Your task to perform on an android device: set an alarm Image 0: 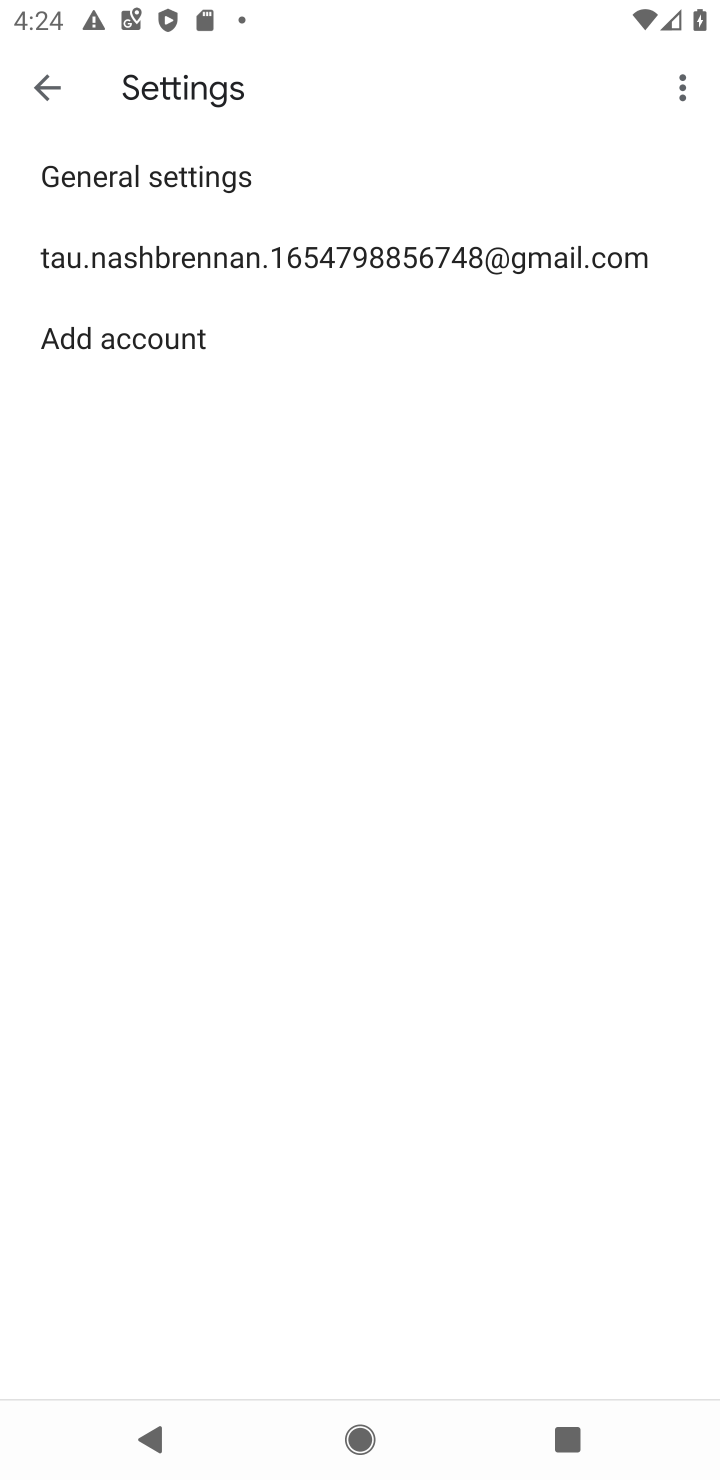
Step 0: press home button
Your task to perform on an android device: set an alarm Image 1: 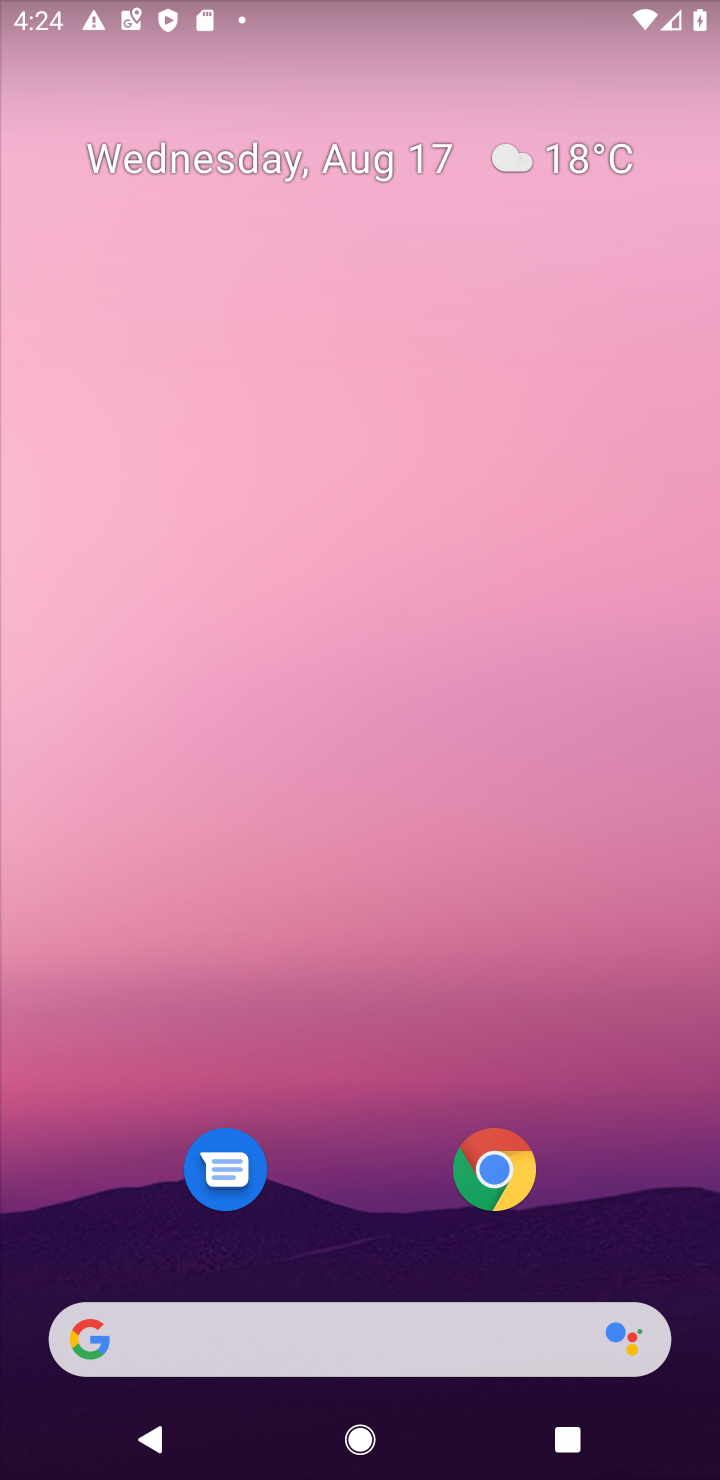
Step 1: drag from (400, 1249) to (413, 132)
Your task to perform on an android device: set an alarm Image 2: 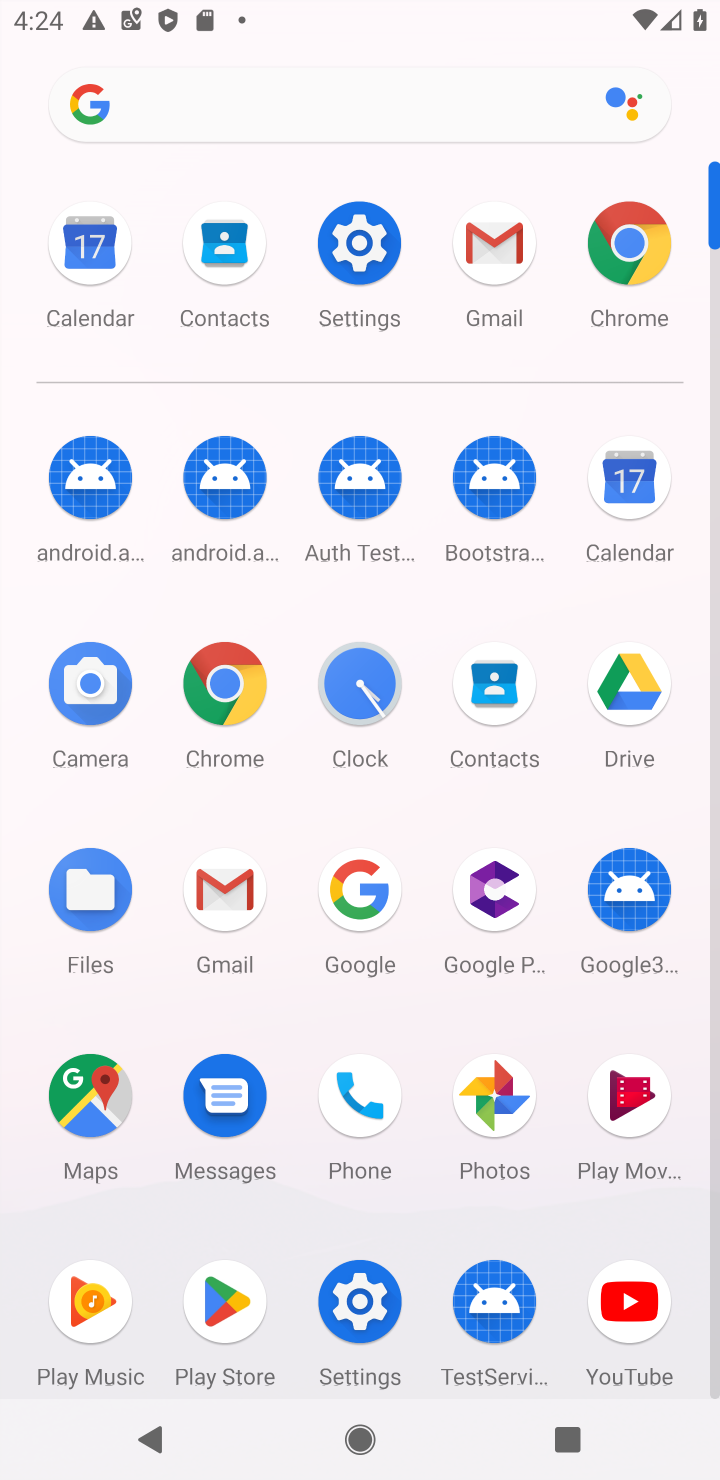
Step 2: click (349, 689)
Your task to perform on an android device: set an alarm Image 3: 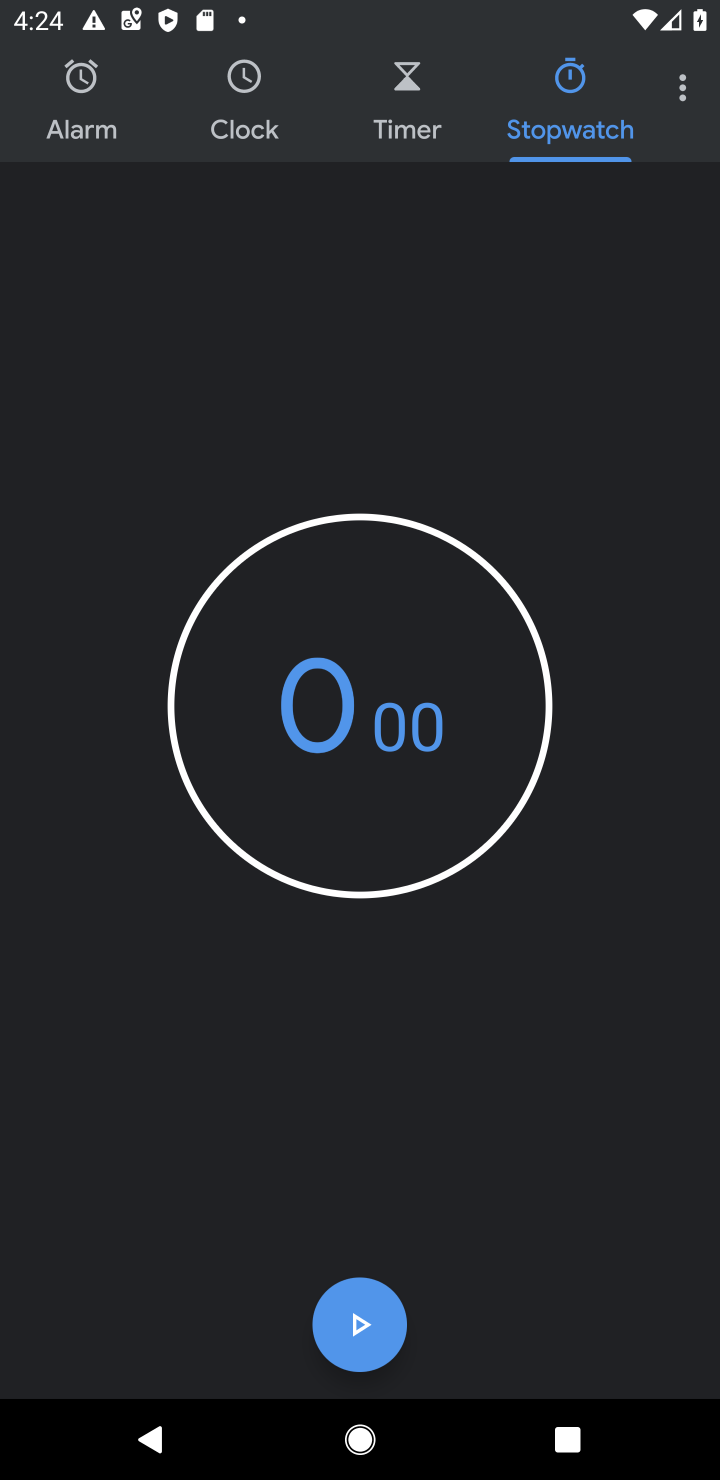
Step 3: click (88, 128)
Your task to perform on an android device: set an alarm Image 4: 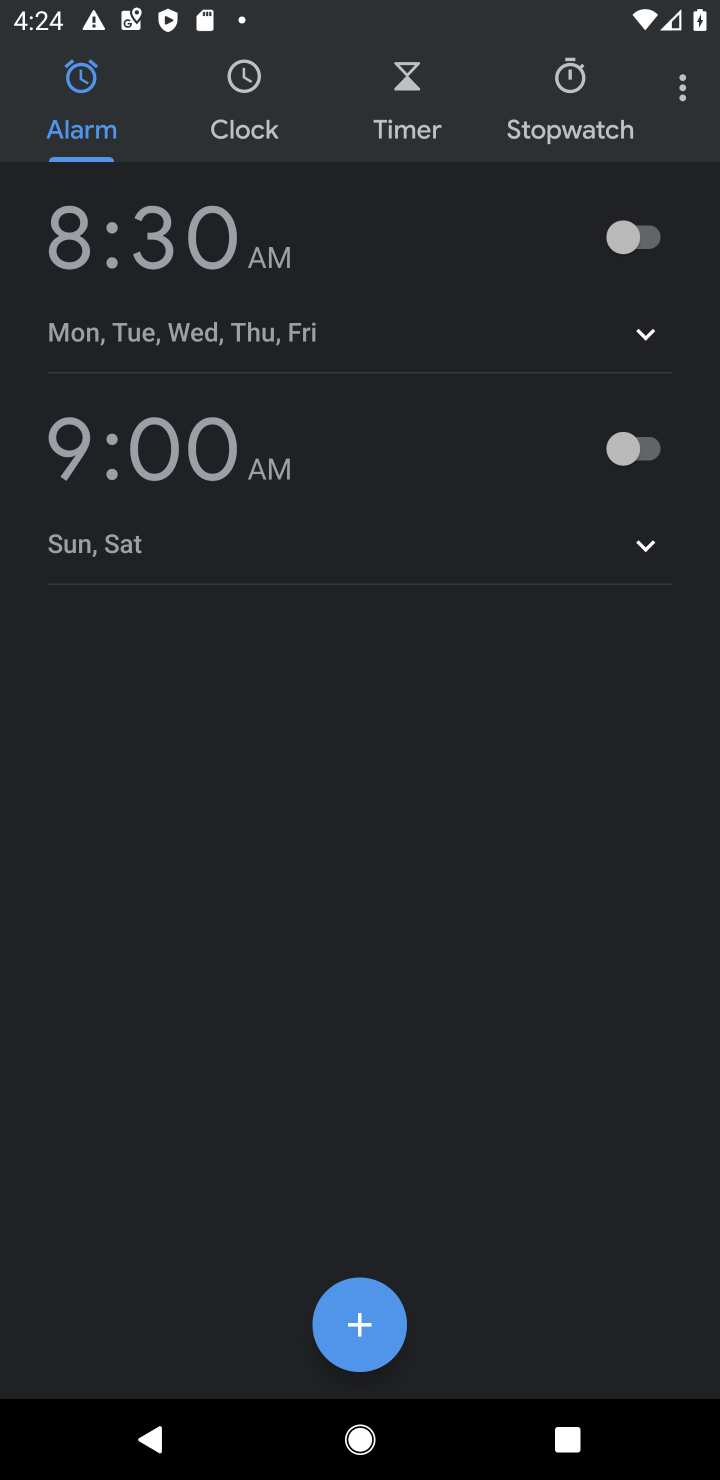
Step 4: click (144, 300)
Your task to perform on an android device: set an alarm Image 5: 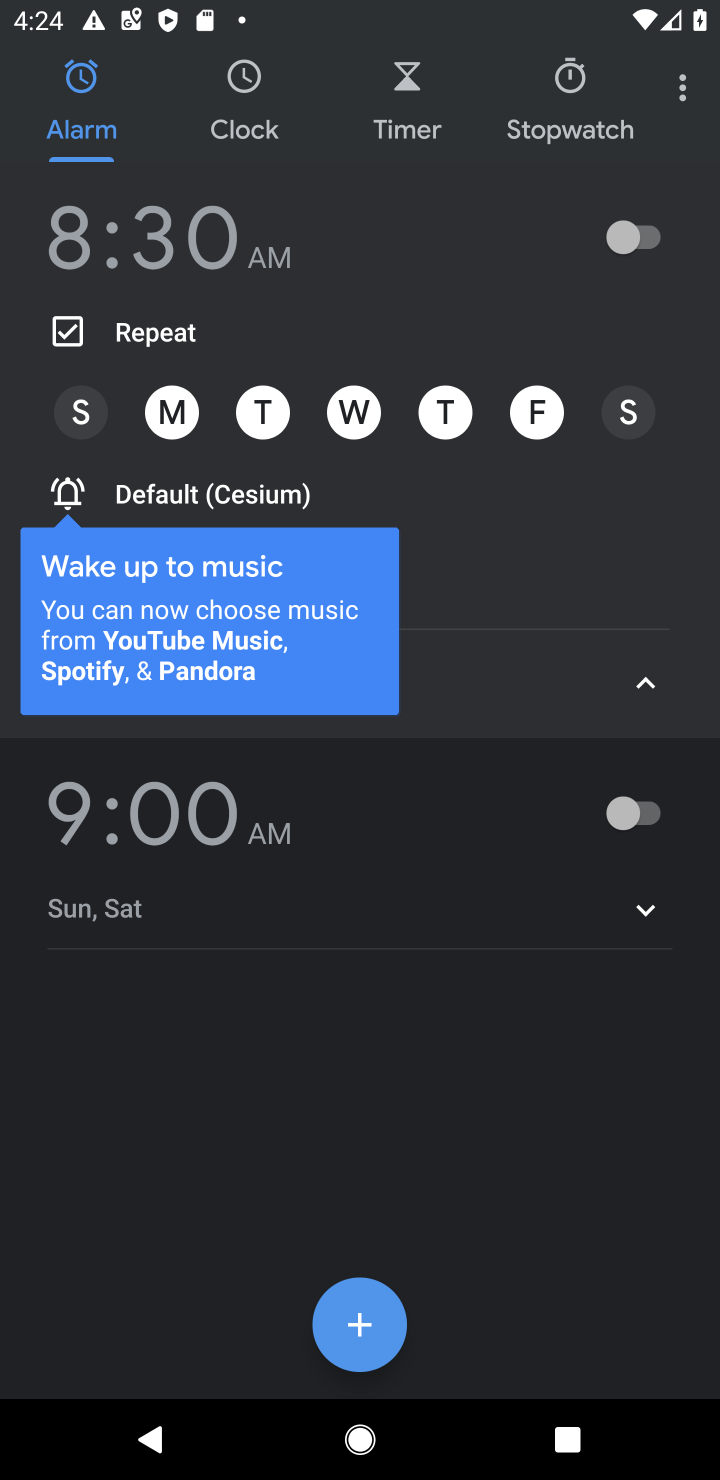
Step 5: click (357, 1283)
Your task to perform on an android device: set an alarm Image 6: 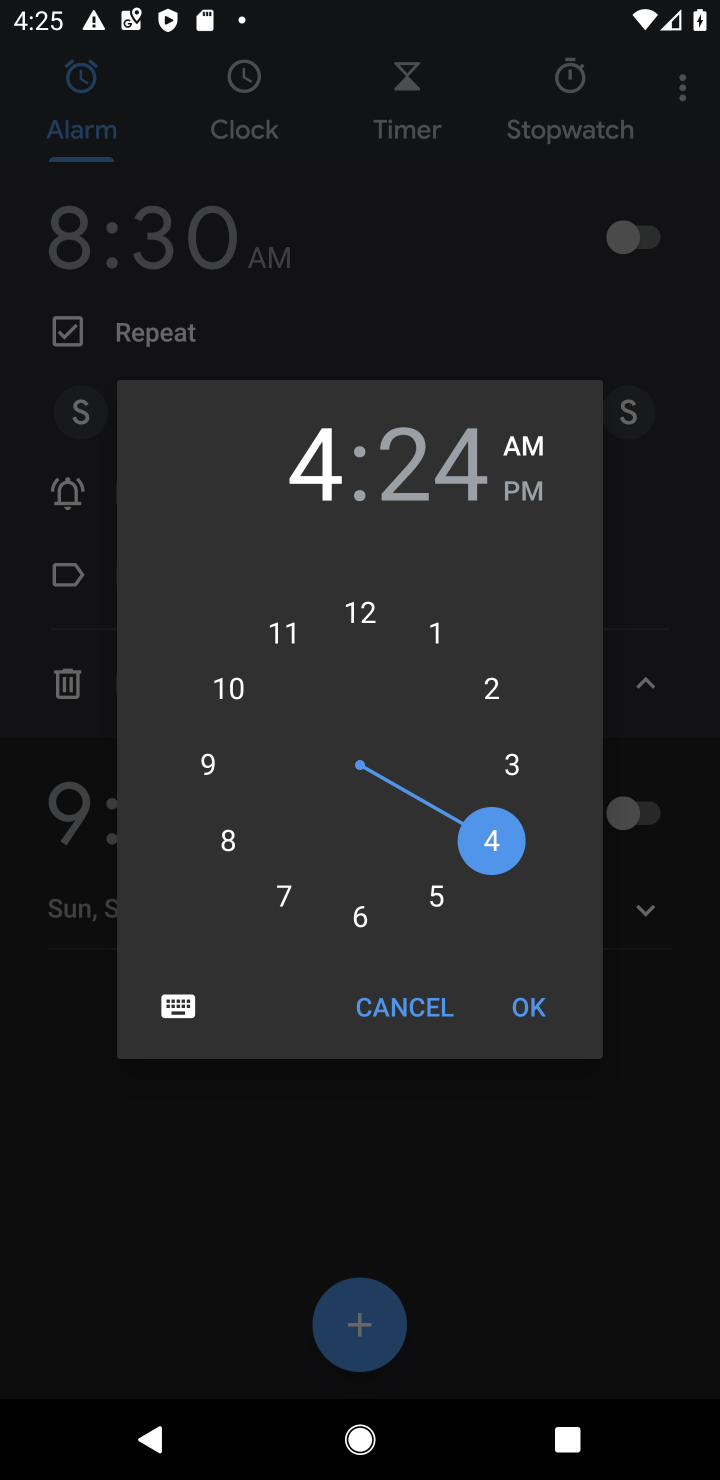
Step 6: click (431, 893)
Your task to perform on an android device: set an alarm Image 7: 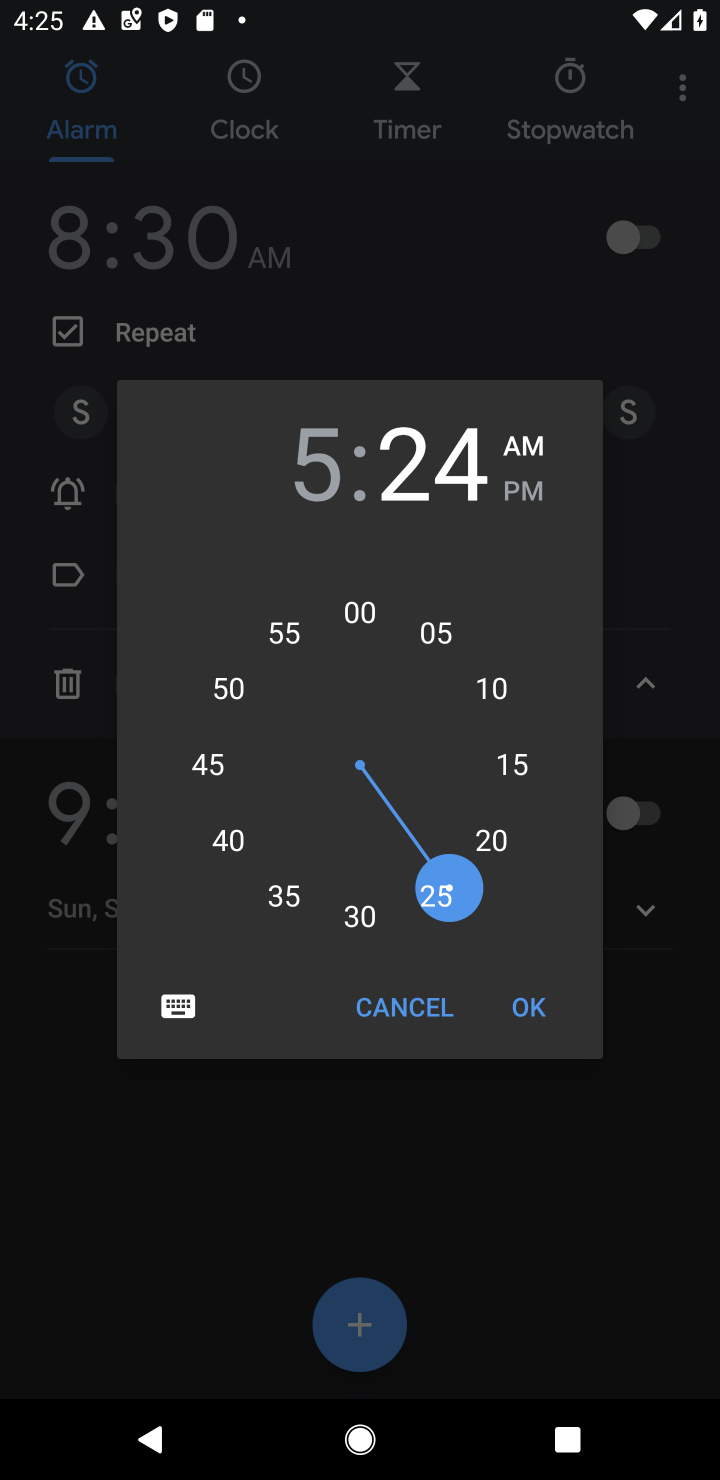
Step 7: click (350, 919)
Your task to perform on an android device: set an alarm Image 8: 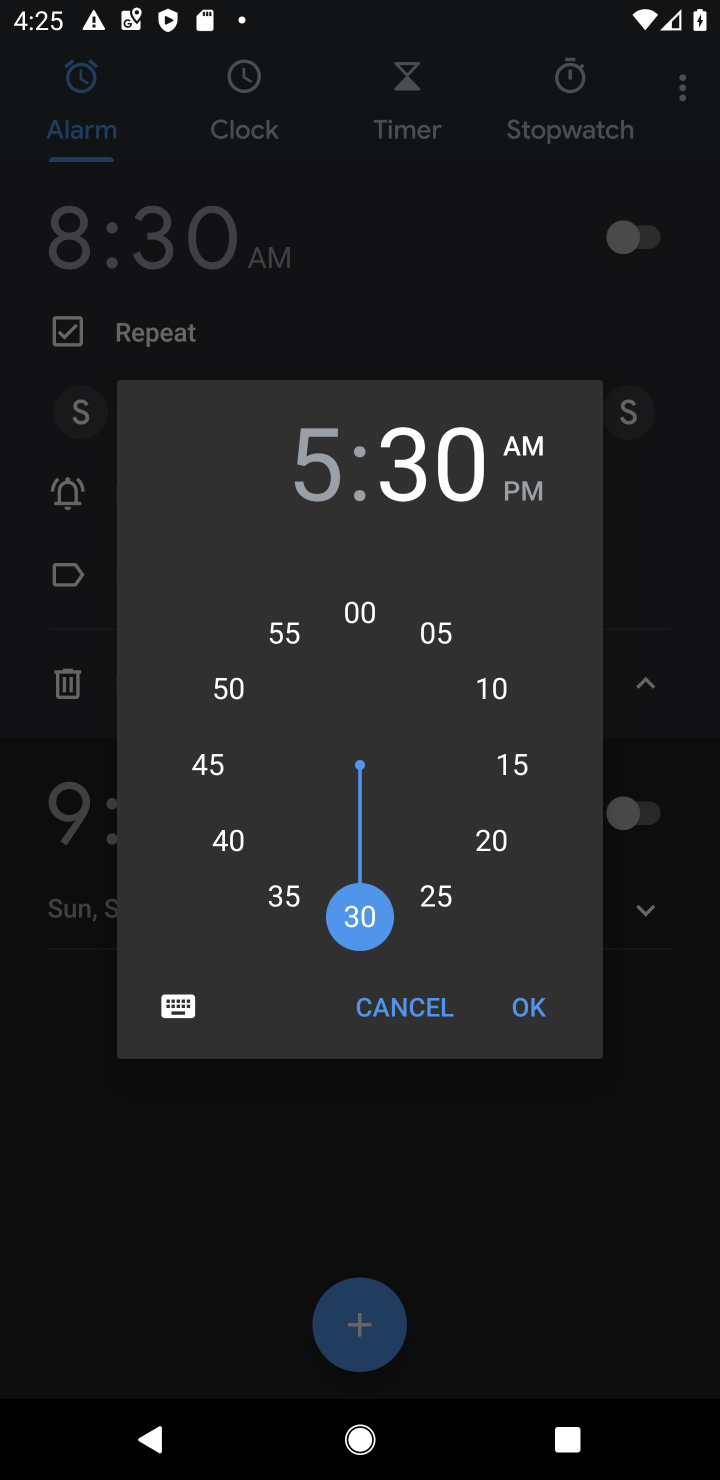
Step 8: click (526, 446)
Your task to perform on an android device: set an alarm Image 9: 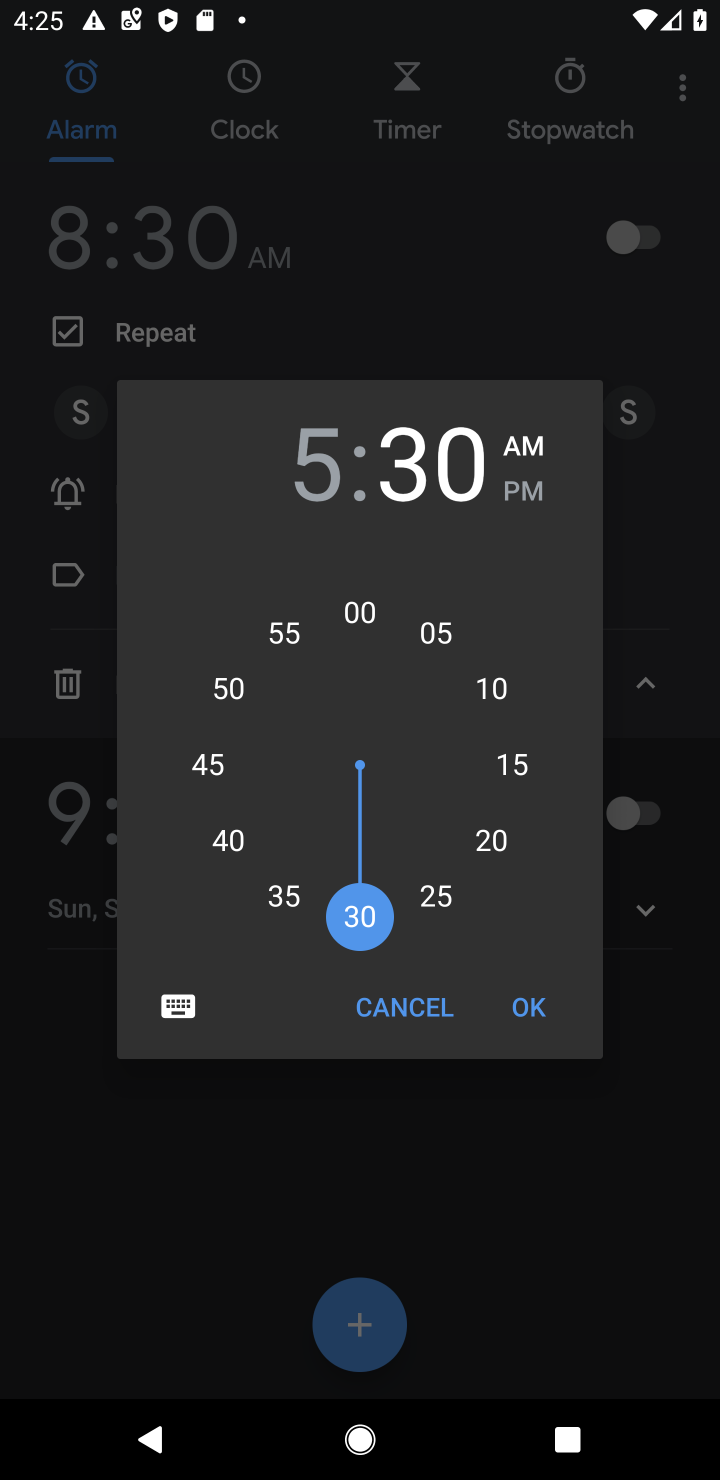
Step 9: click (525, 998)
Your task to perform on an android device: set an alarm Image 10: 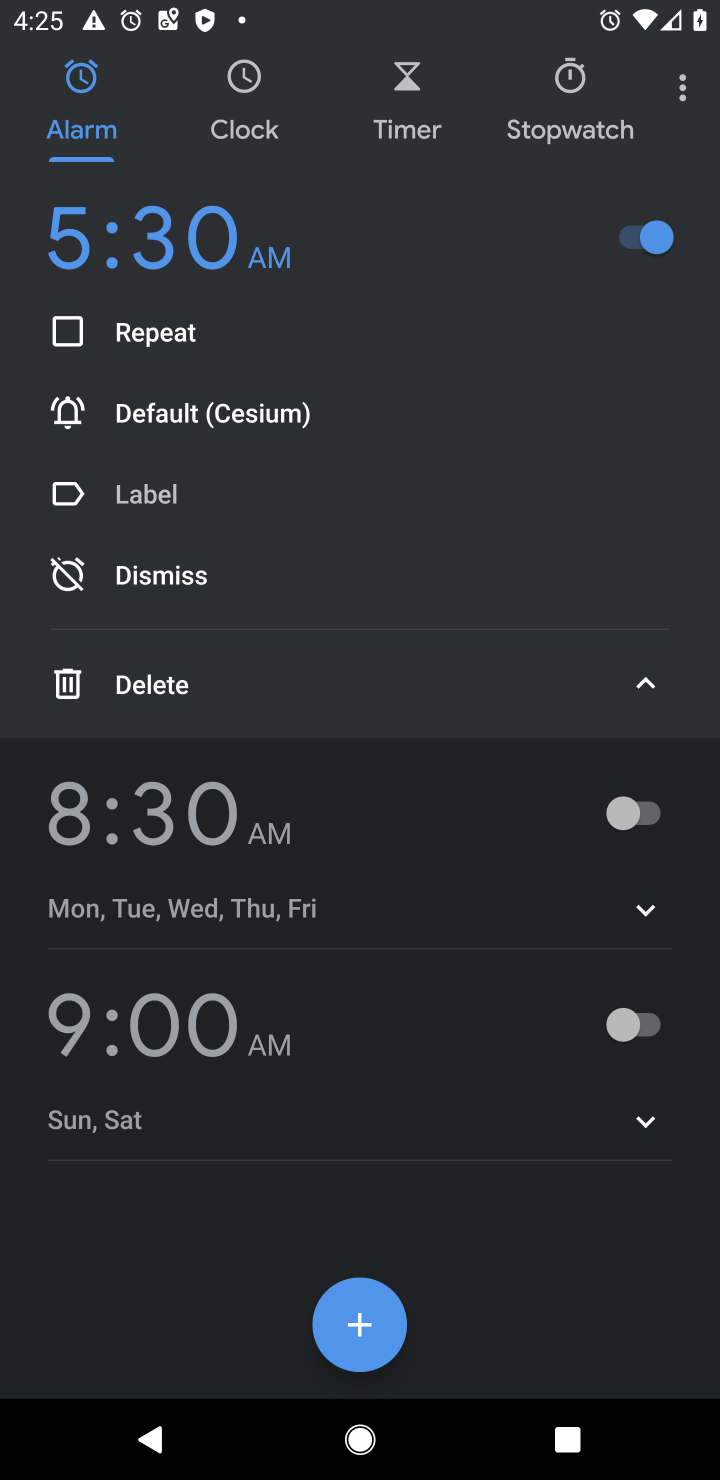
Step 10: task complete